Your task to perform on an android device: change keyboard looks Image 0: 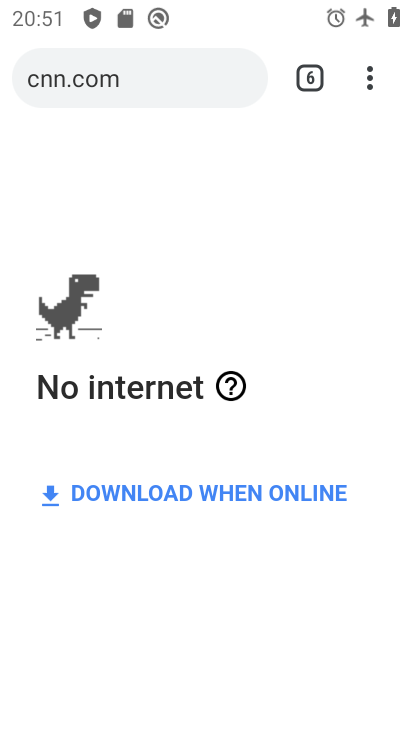
Step 0: press home button
Your task to perform on an android device: change keyboard looks Image 1: 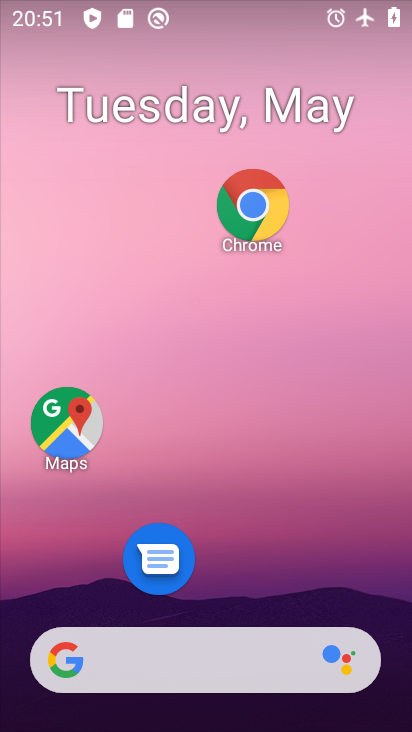
Step 1: drag from (246, 608) to (181, 63)
Your task to perform on an android device: change keyboard looks Image 2: 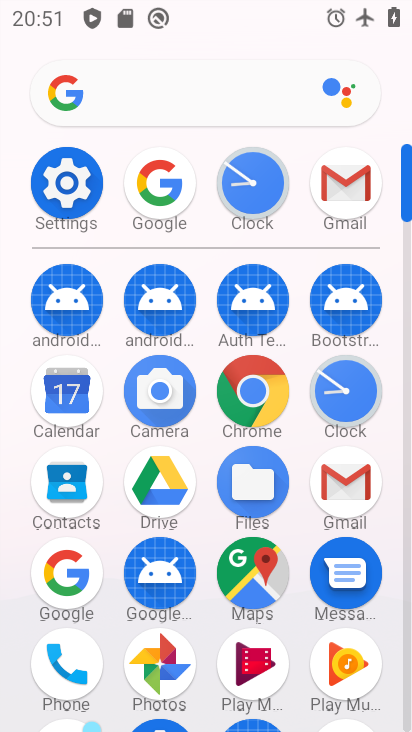
Step 2: click (68, 194)
Your task to perform on an android device: change keyboard looks Image 3: 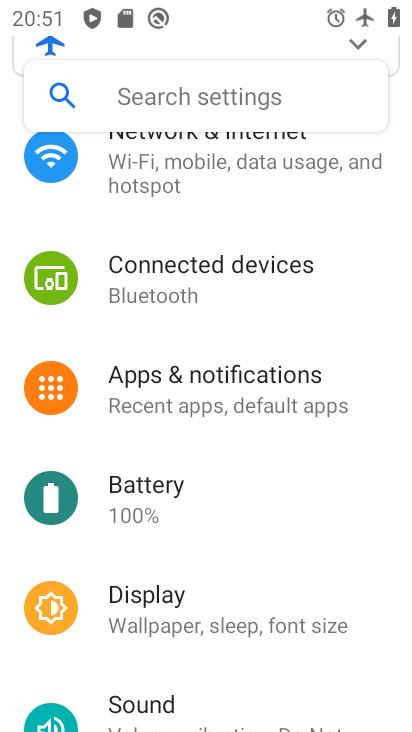
Step 3: drag from (219, 669) to (219, 96)
Your task to perform on an android device: change keyboard looks Image 4: 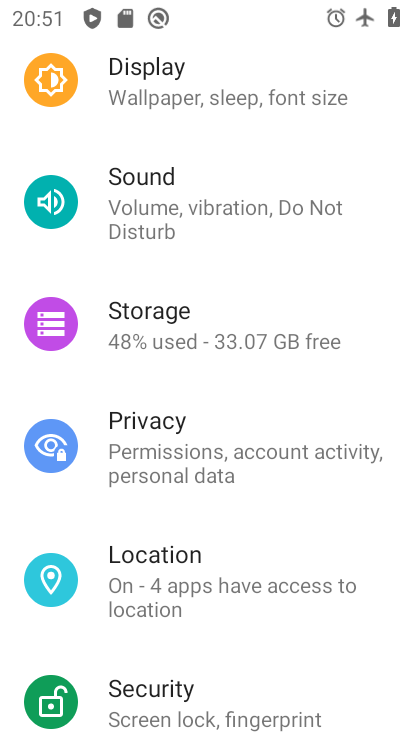
Step 4: drag from (263, 617) to (255, 146)
Your task to perform on an android device: change keyboard looks Image 5: 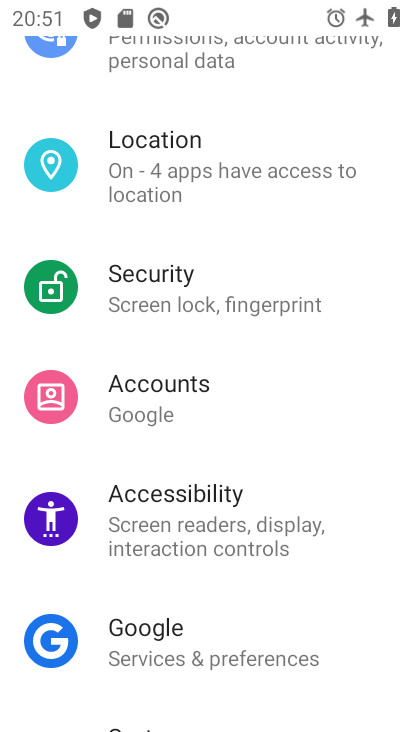
Step 5: drag from (278, 643) to (265, 188)
Your task to perform on an android device: change keyboard looks Image 6: 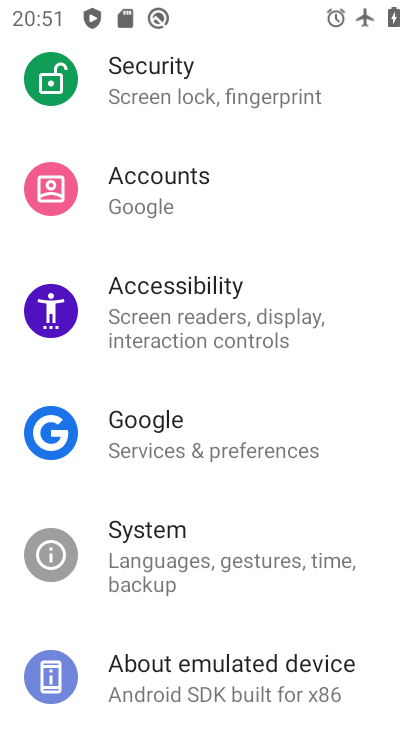
Step 6: drag from (201, 642) to (212, 364)
Your task to perform on an android device: change keyboard looks Image 7: 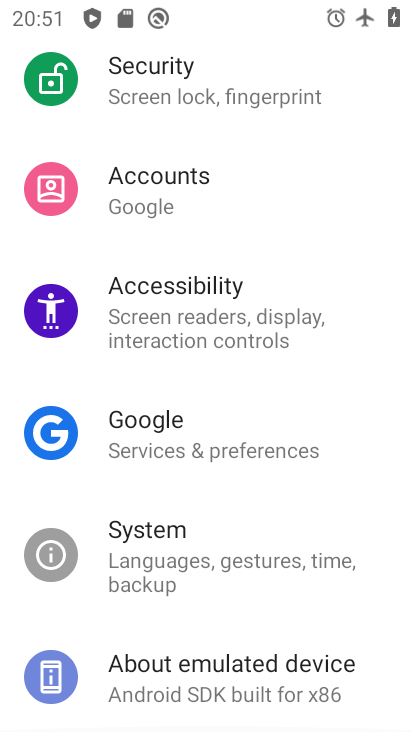
Step 7: click (156, 560)
Your task to perform on an android device: change keyboard looks Image 8: 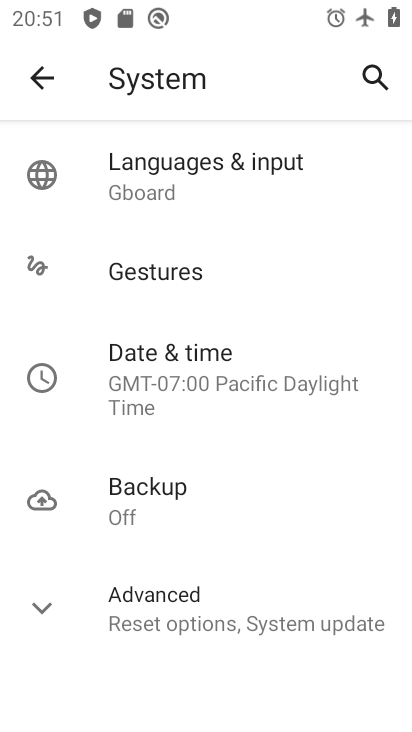
Step 8: click (174, 183)
Your task to perform on an android device: change keyboard looks Image 9: 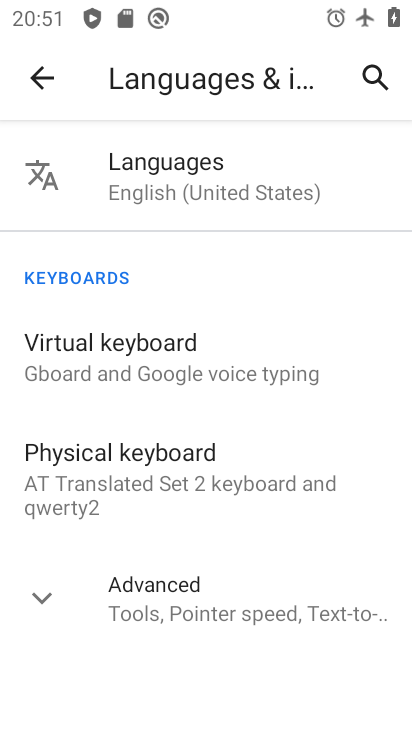
Step 9: click (148, 323)
Your task to perform on an android device: change keyboard looks Image 10: 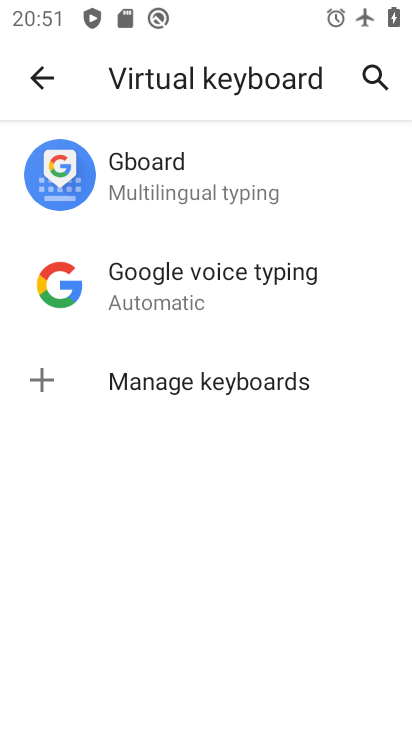
Step 10: click (171, 191)
Your task to perform on an android device: change keyboard looks Image 11: 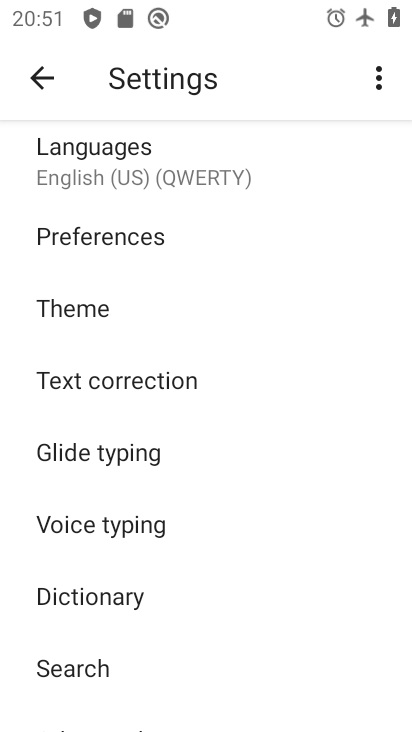
Step 11: click (149, 289)
Your task to perform on an android device: change keyboard looks Image 12: 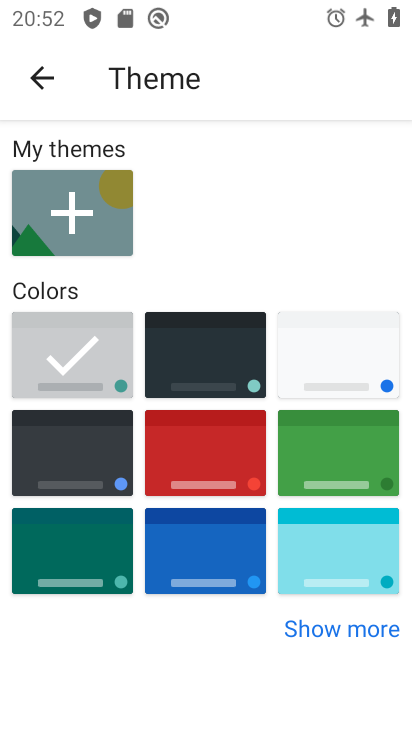
Step 12: click (94, 461)
Your task to perform on an android device: change keyboard looks Image 13: 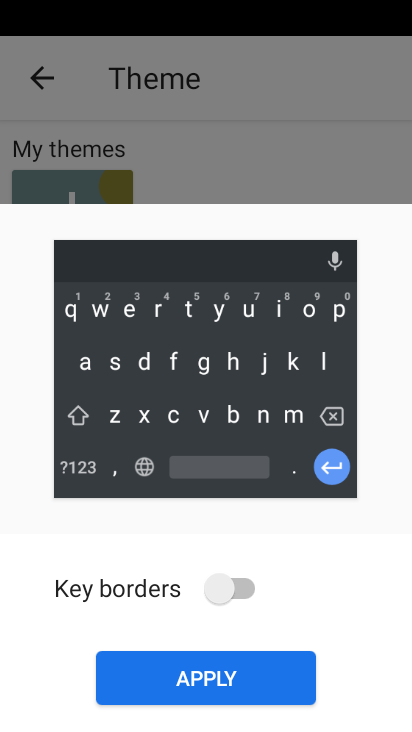
Step 13: click (234, 684)
Your task to perform on an android device: change keyboard looks Image 14: 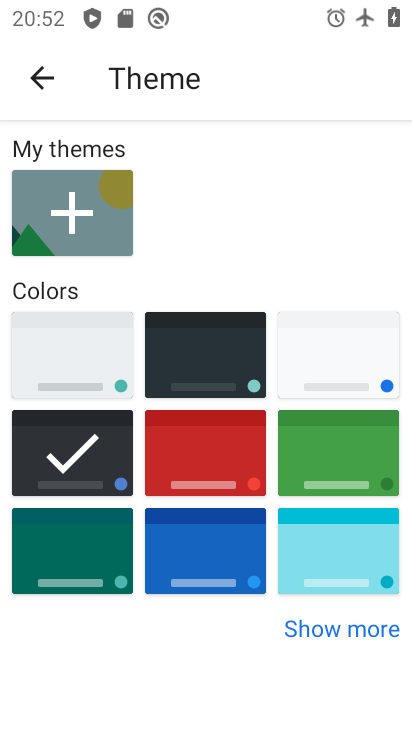
Step 14: task complete